Your task to perform on an android device: Open calendar and show me the fourth week of next month Image 0: 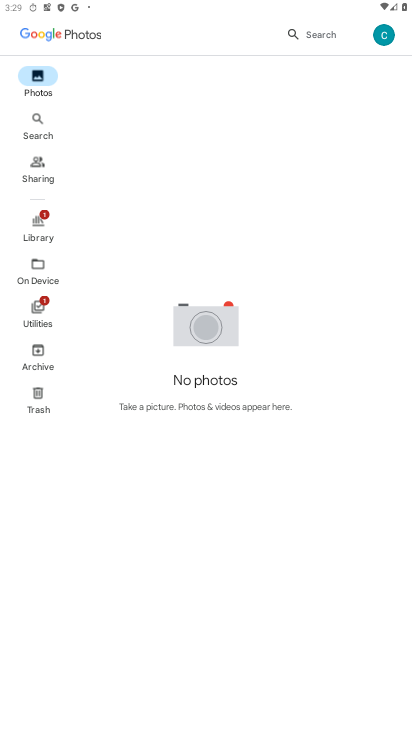
Step 0: press home button
Your task to perform on an android device: Open calendar and show me the fourth week of next month Image 1: 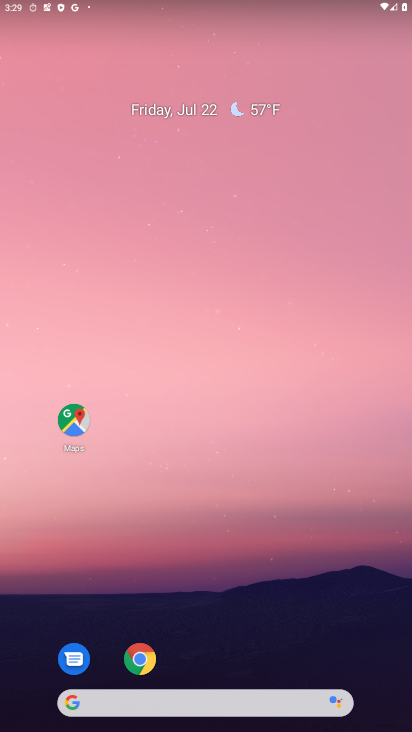
Step 1: drag from (286, 629) to (304, 0)
Your task to perform on an android device: Open calendar and show me the fourth week of next month Image 2: 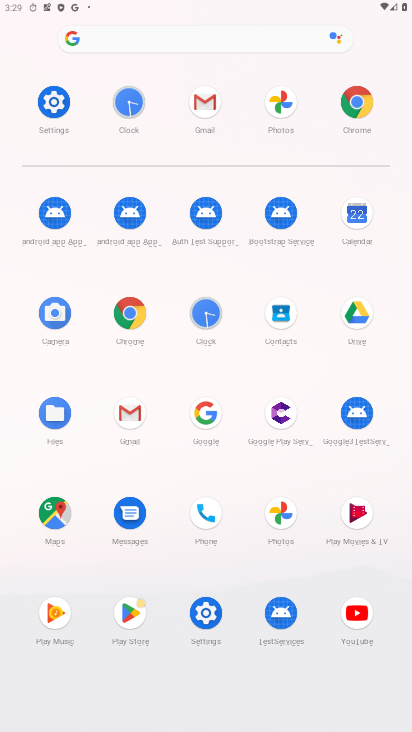
Step 2: click (359, 221)
Your task to perform on an android device: Open calendar and show me the fourth week of next month Image 3: 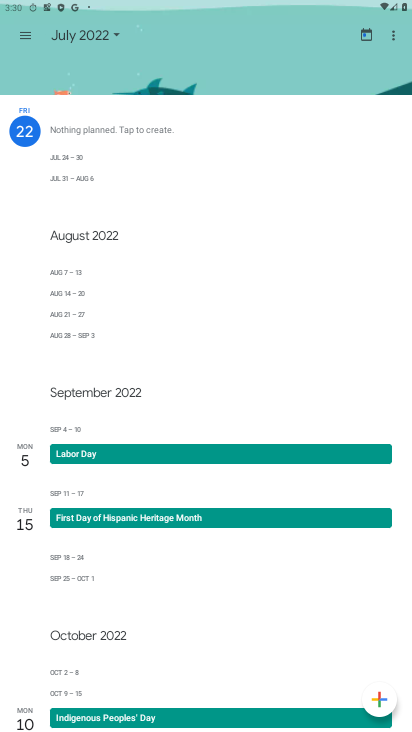
Step 3: click (107, 36)
Your task to perform on an android device: Open calendar and show me the fourth week of next month Image 4: 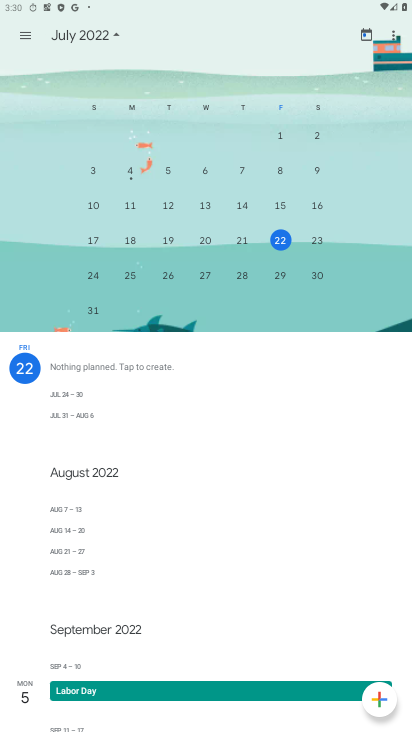
Step 4: drag from (354, 243) to (6, 202)
Your task to perform on an android device: Open calendar and show me the fourth week of next month Image 5: 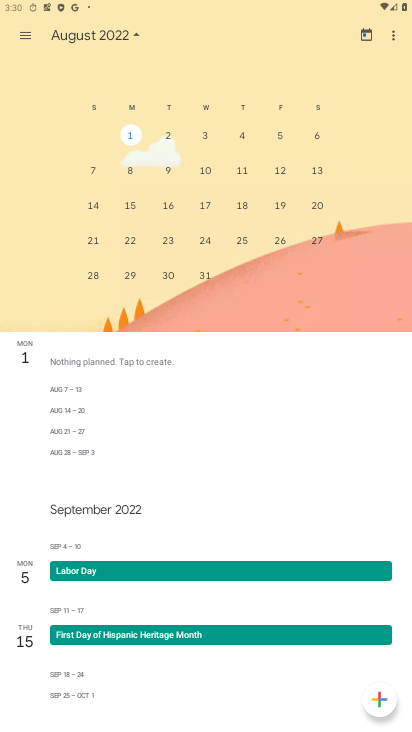
Step 5: click (97, 234)
Your task to perform on an android device: Open calendar and show me the fourth week of next month Image 6: 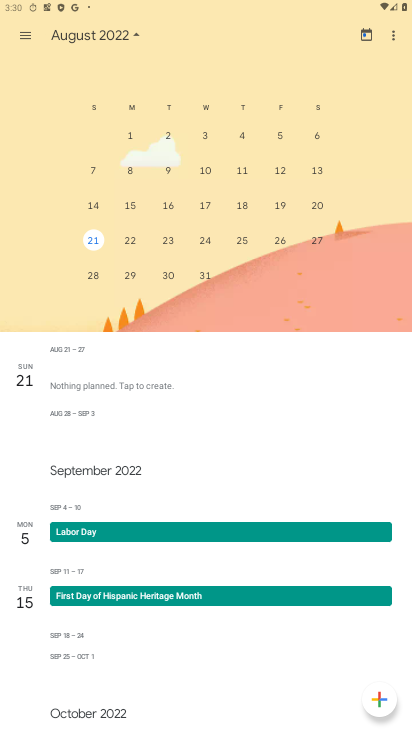
Step 6: task complete